Your task to perform on an android device: Open internet settings Image 0: 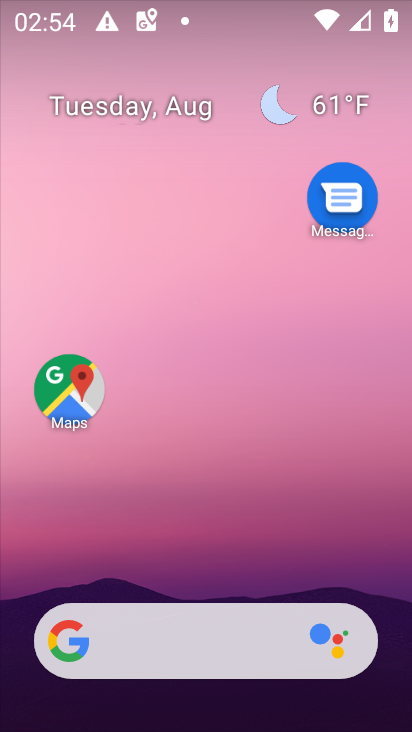
Step 0: drag from (204, 574) to (261, 6)
Your task to perform on an android device: Open internet settings Image 1: 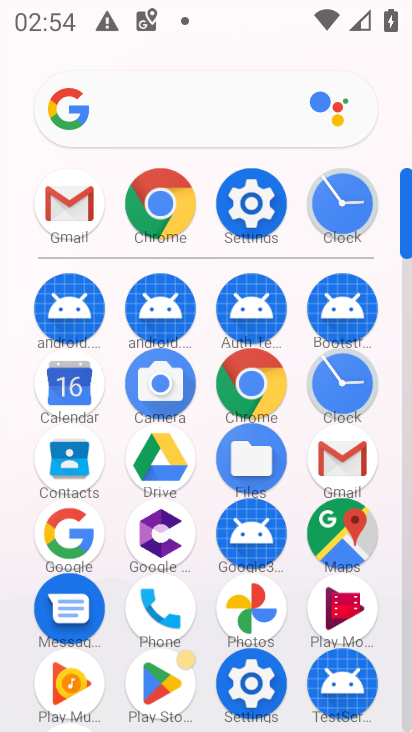
Step 1: click (260, 187)
Your task to perform on an android device: Open internet settings Image 2: 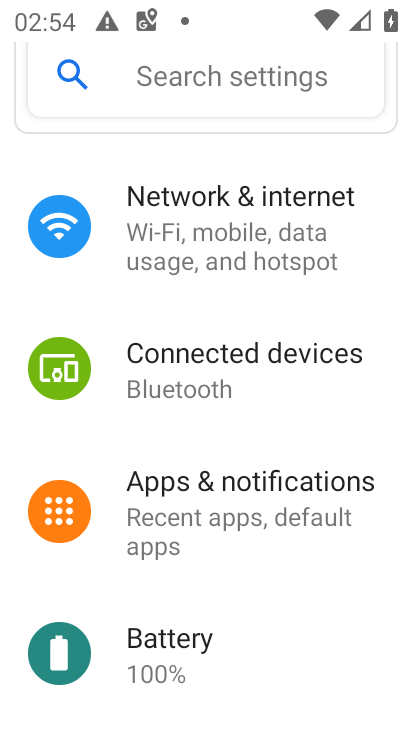
Step 2: click (253, 237)
Your task to perform on an android device: Open internet settings Image 3: 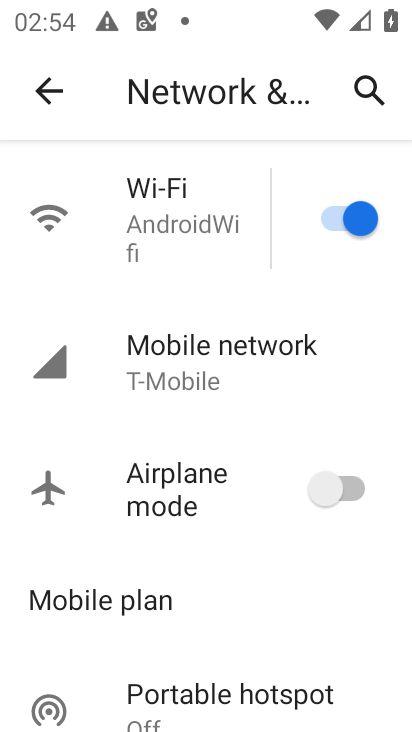
Step 3: task complete